Your task to perform on an android device: Open internet settings Image 0: 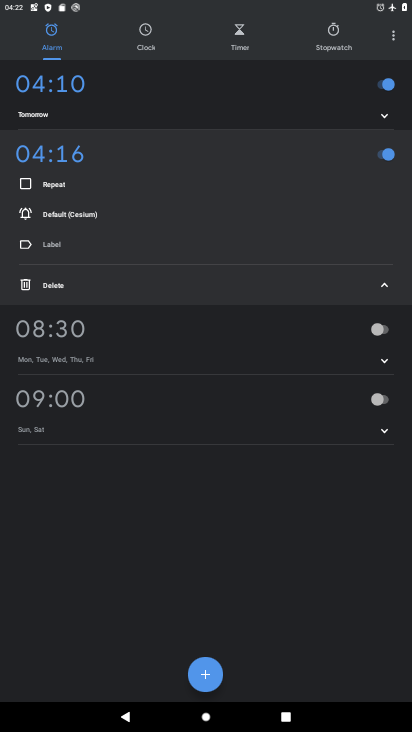
Step 0: press home button
Your task to perform on an android device: Open internet settings Image 1: 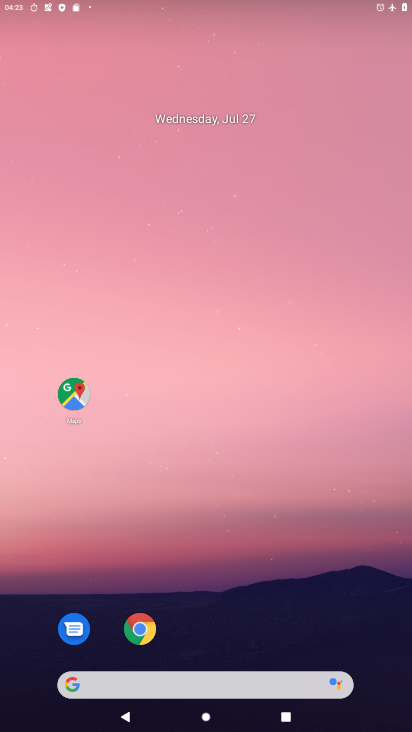
Step 1: drag from (327, 589) to (252, 17)
Your task to perform on an android device: Open internet settings Image 2: 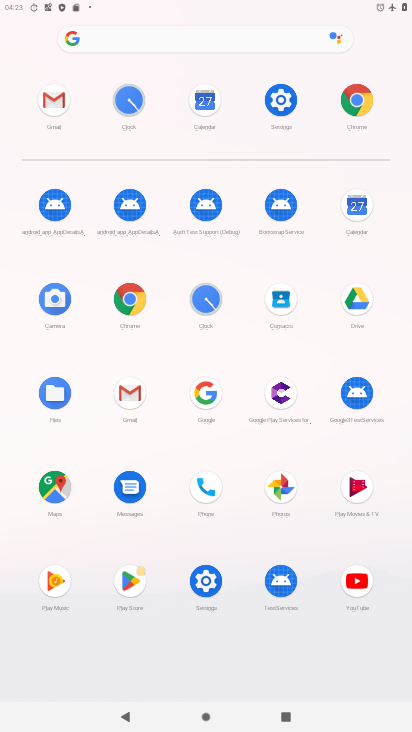
Step 2: click (283, 113)
Your task to perform on an android device: Open internet settings Image 3: 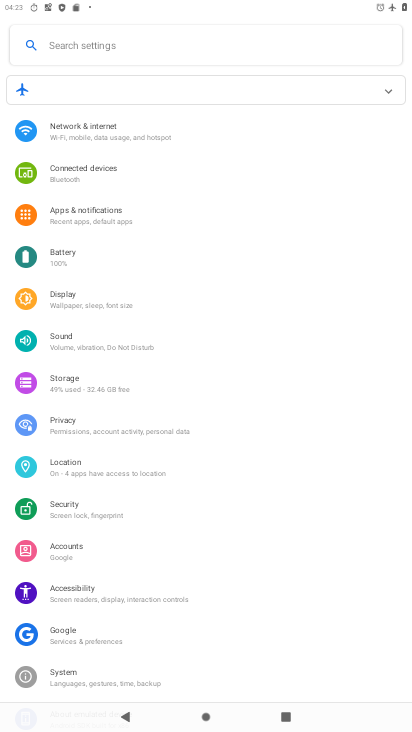
Step 3: click (121, 138)
Your task to perform on an android device: Open internet settings Image 4: 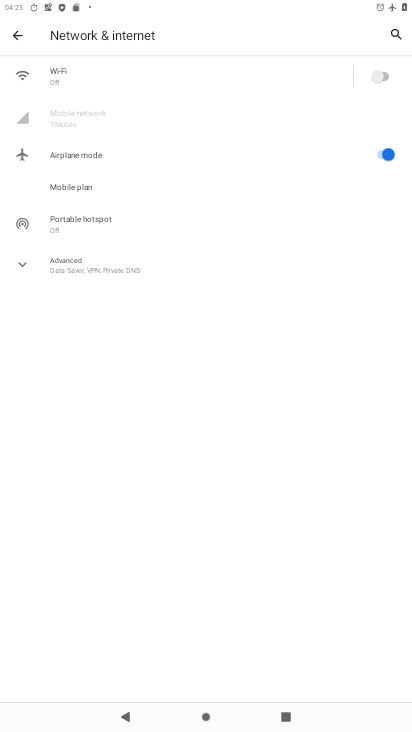
Step 4: click (94, 263)
Your task to perform on an android device: Open internet settings Image 5: 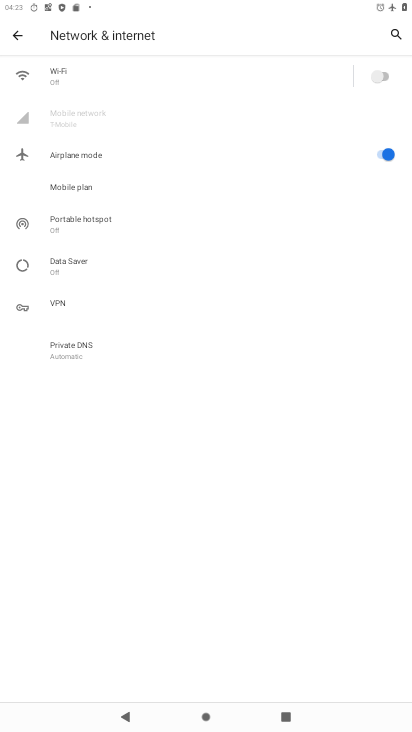
Step 5: task complete